Your task to perform on an android device: Open Wikipedia Image 0: 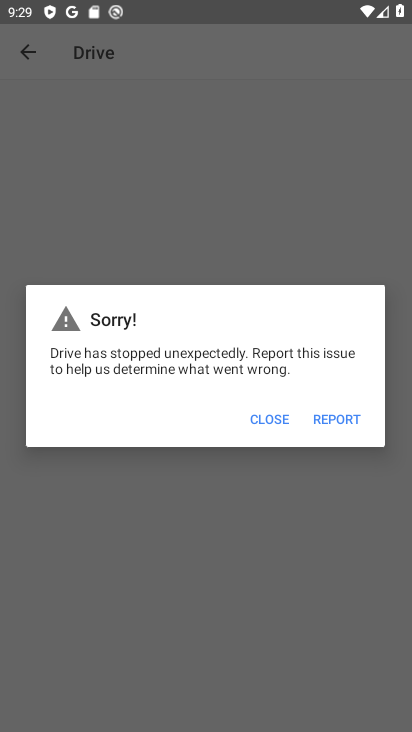
Step 0: press home button
Your task to perform on an android device: Open Wikipedia Image 1: 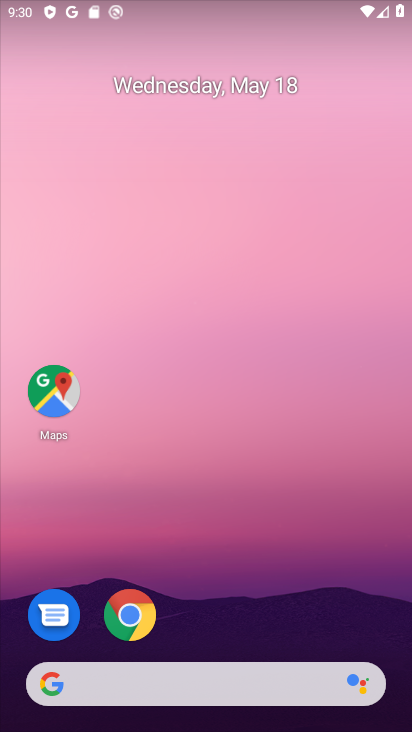
Step 1: click (138, 612)
Your task to perform on an android device: Open Wikipedia Image 2: 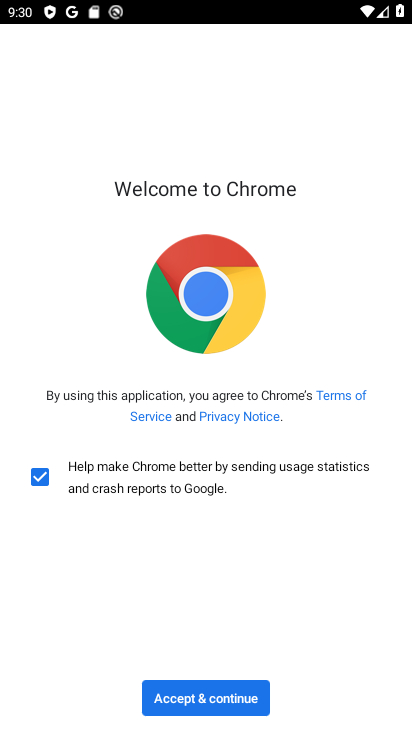
Step 2: click (200, 709)
Your task to perform on an android device: Open Wikipedia Image 3: 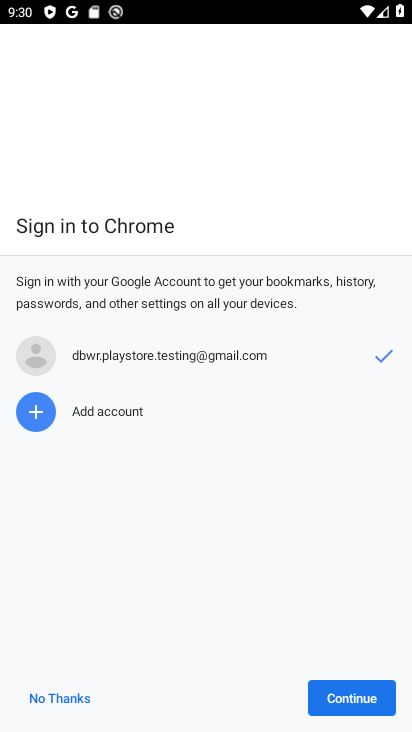
Step 3: click (372, 688)
Your task to perform on an android device: Open Wikipedia Image 4: 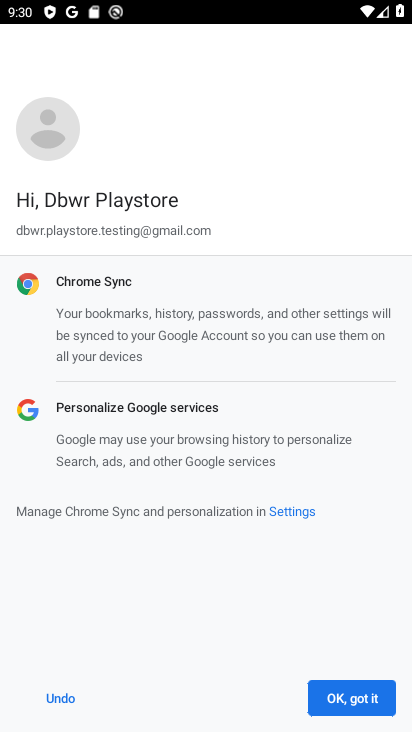
Step 4: click (364, 689)
Your task to perform on an android device: Open Wikipedia Image 5: 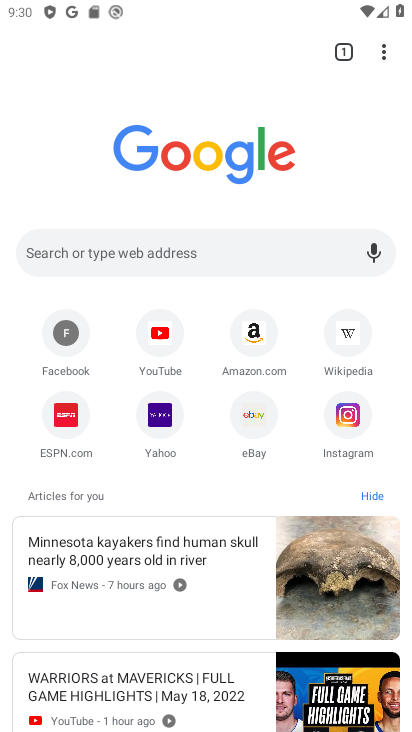
Step 5: click (344, 338)
Your task to perform on an android device: Open Wikipedia Image 6: 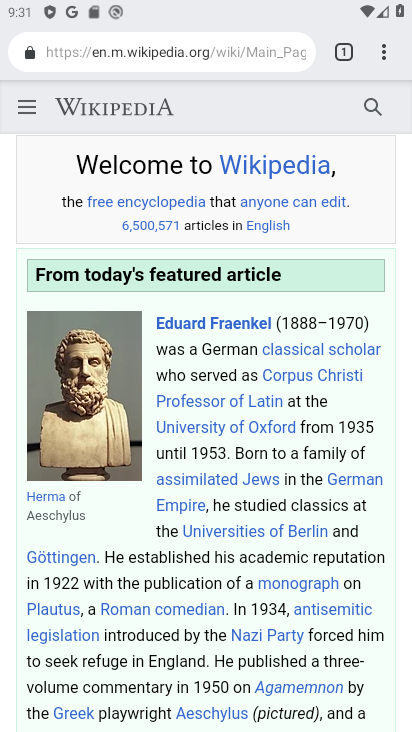
Step 6: task complete